Your task to perform on an android device: Open Youtube and go to the subscriptions tab Image 0: 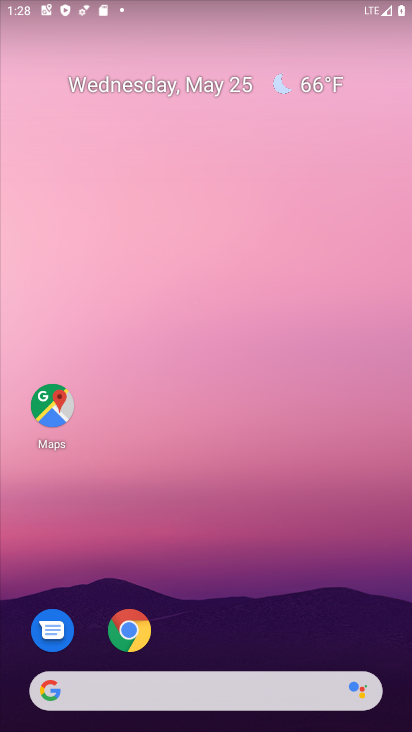
Step 0: drag from (208, 652) to (237, 111)
Your task to perform on an android device: Open Youtube and go to the subscriptions tab Image 1: 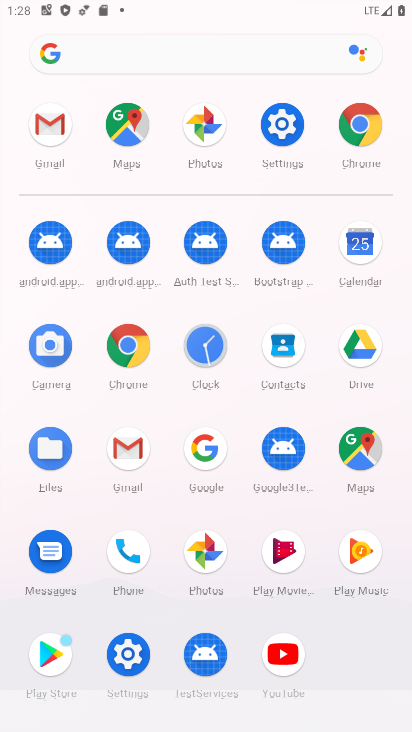
Step 1: click (283, 649)
Your task to perform on an android device: Open Youtube and go to the subscriptions tab Image 2: 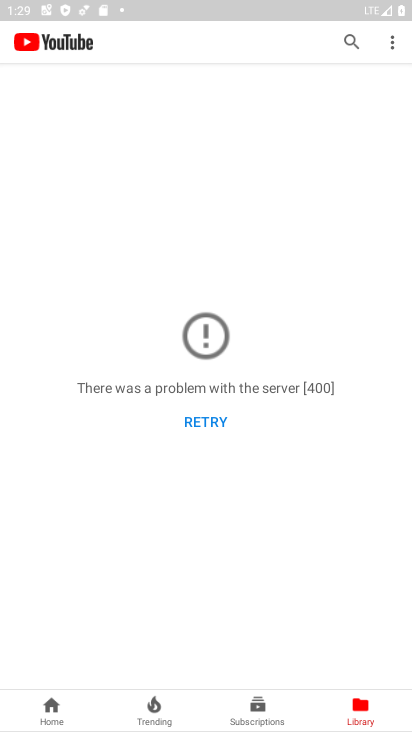
Step 2: click (256, 704)
Your task to perform on an android device: Open Youtube and go to the subscriptions tab Image 3: 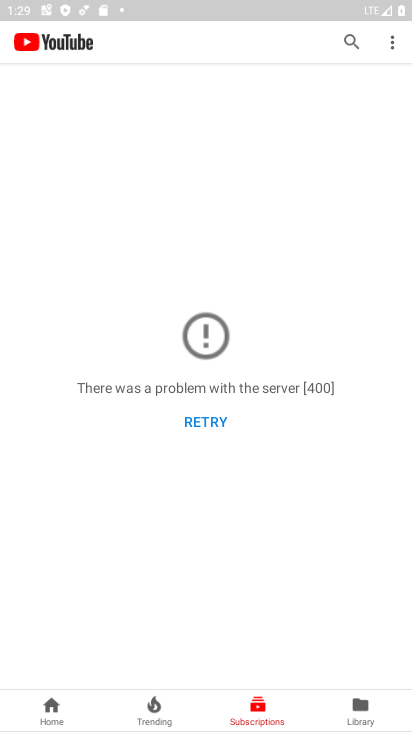
Step 3: task complete